Your task to perform on an android device: What's the weather like in Rio de Janeiro? Image 0: 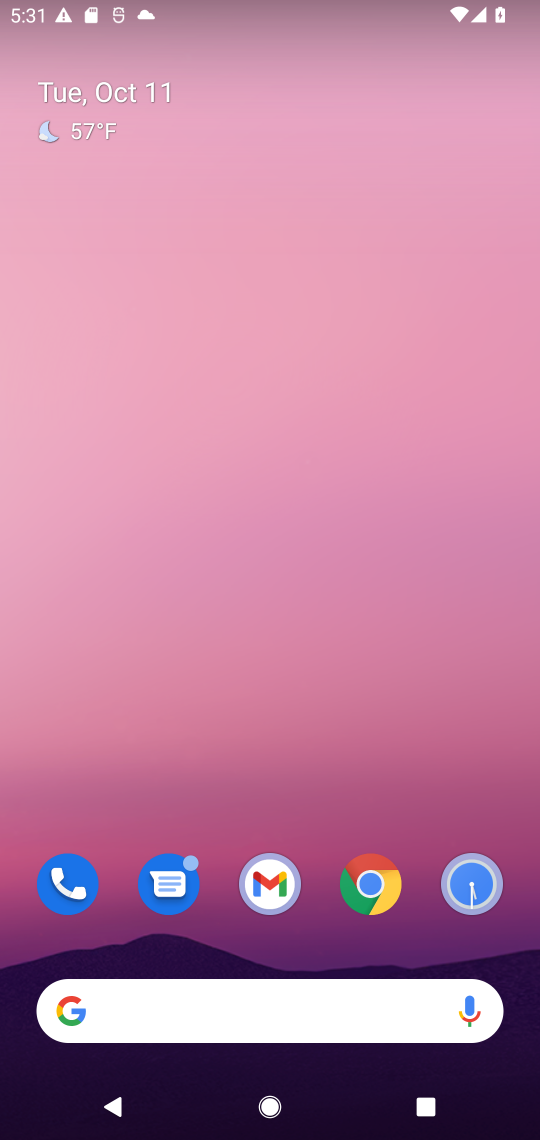
Step 0: drag from (297, 969) to (219, 83)
Your task to perform on an android device: What's the weather like in Rio de Janeiro? Image 1: 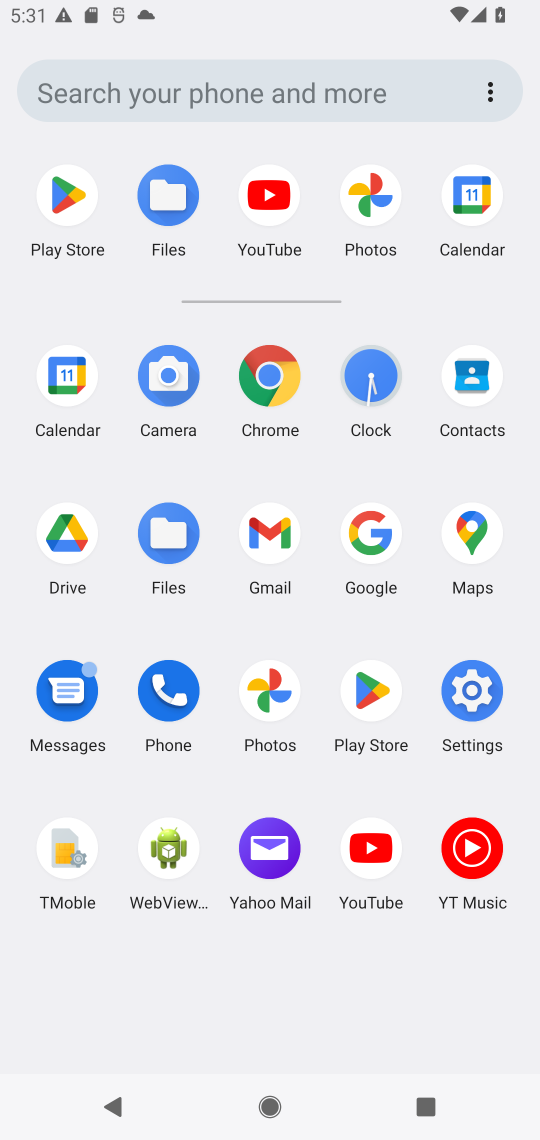
Step 1: click (267, 371)
Your task to perform on an android device: What's the weather like in Rio de Janeiro? Image 2: 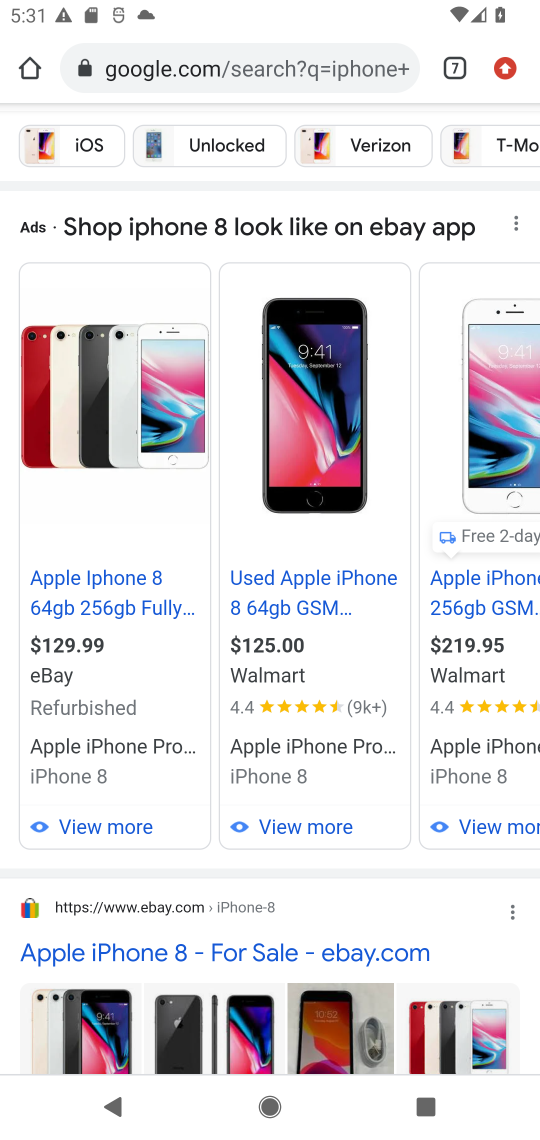
Step 2: drag from (293, 180) to (307, 696)
Your task to perform on an android device: What's the weather like in Rio de Janeiro? Image 3: 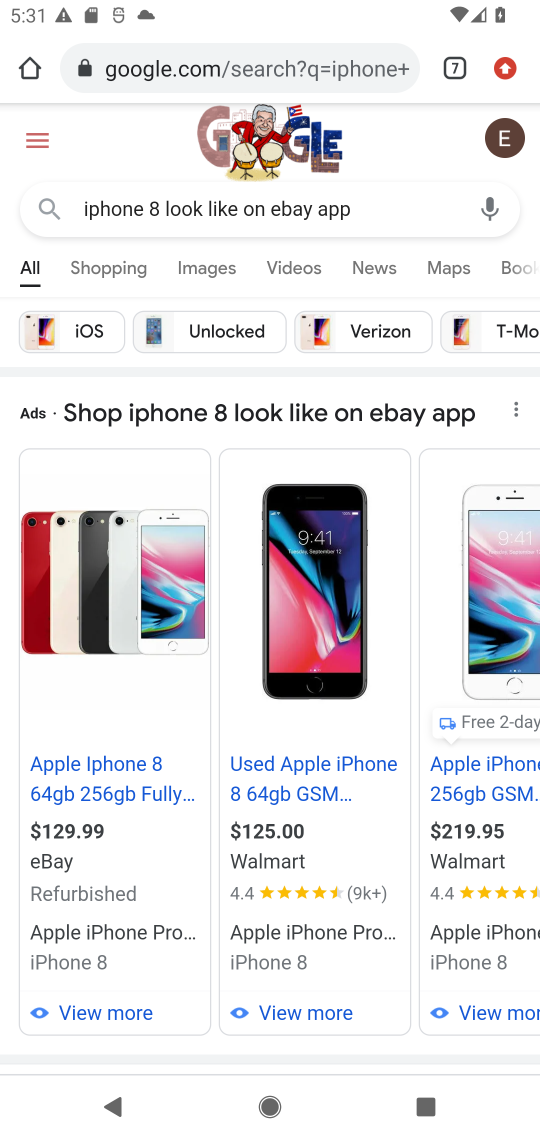
Step 3: click (349, 208)
Your task to perform on an android device: What's the weather like in Rio de Janeiro? Image 4: 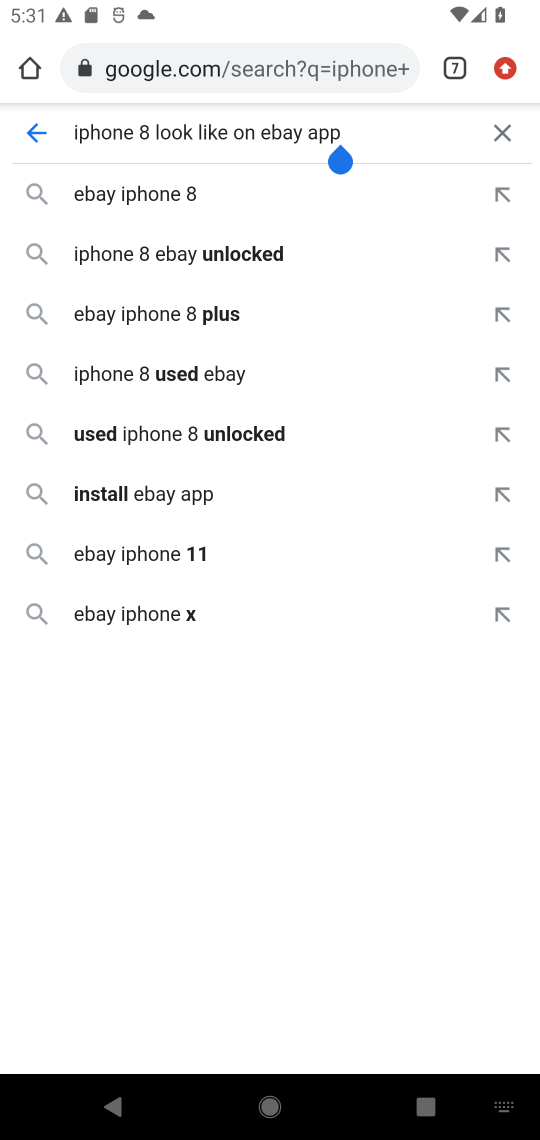
Step 4: click (500, 133)
Your task to perform on an android device: What's the weather like in Rio de Janeiro? Image 5: 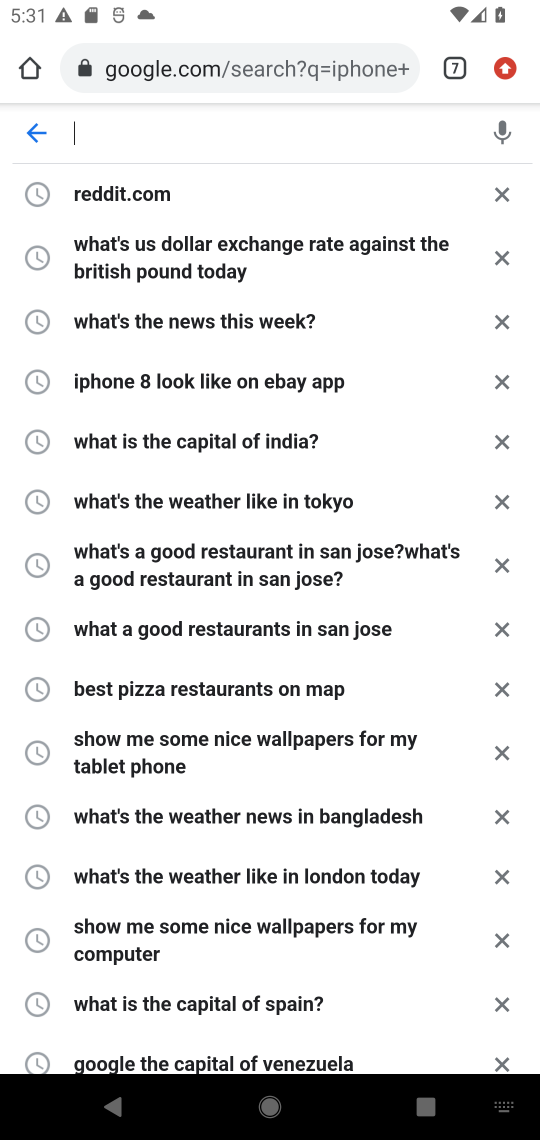
Step 5: type "What's the weather like in Rio de Janeiro?"
Your task to perform on an android device: What's the weather like in Rio de Janeiro? Image 6: 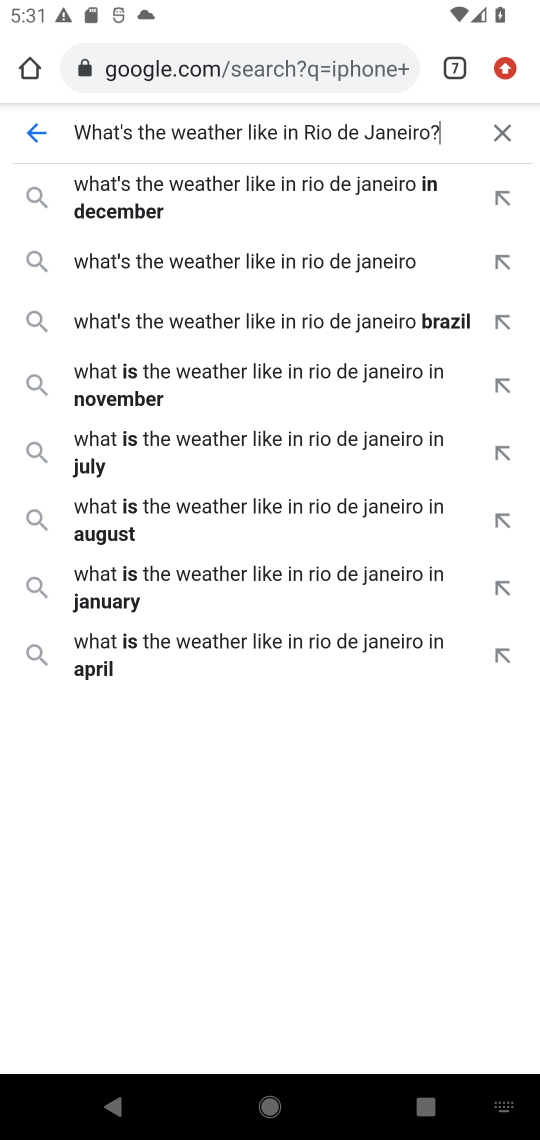
Step 6: click (295, 258)
Your task to perform on an android device: What's the weather like in Rio de Janeiro? Image 7: 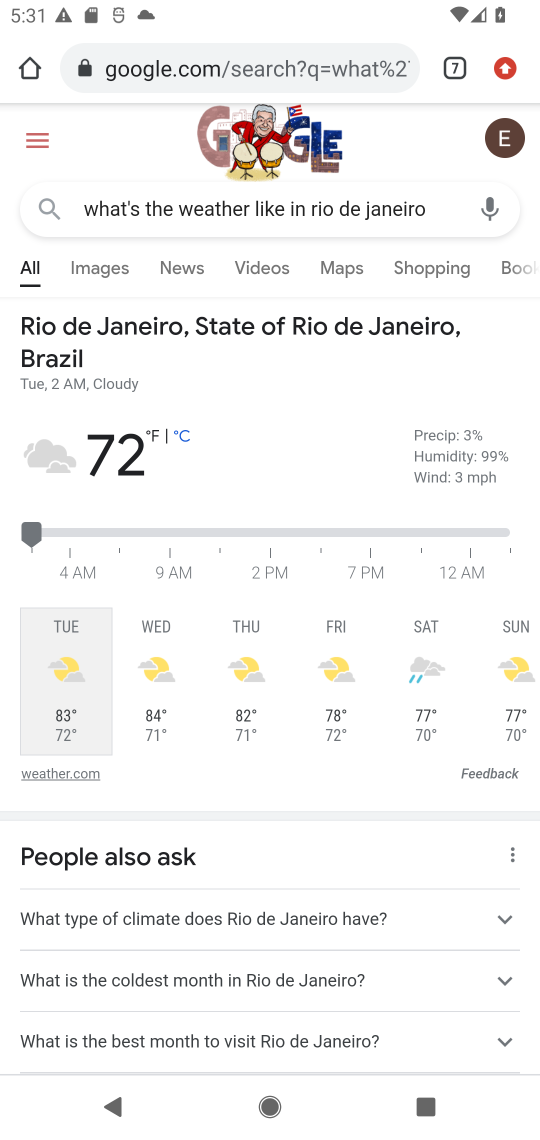
Step 7: task complete